Your task to perform on an android device: open app "Reddit" (install if not already installed) Image 0: 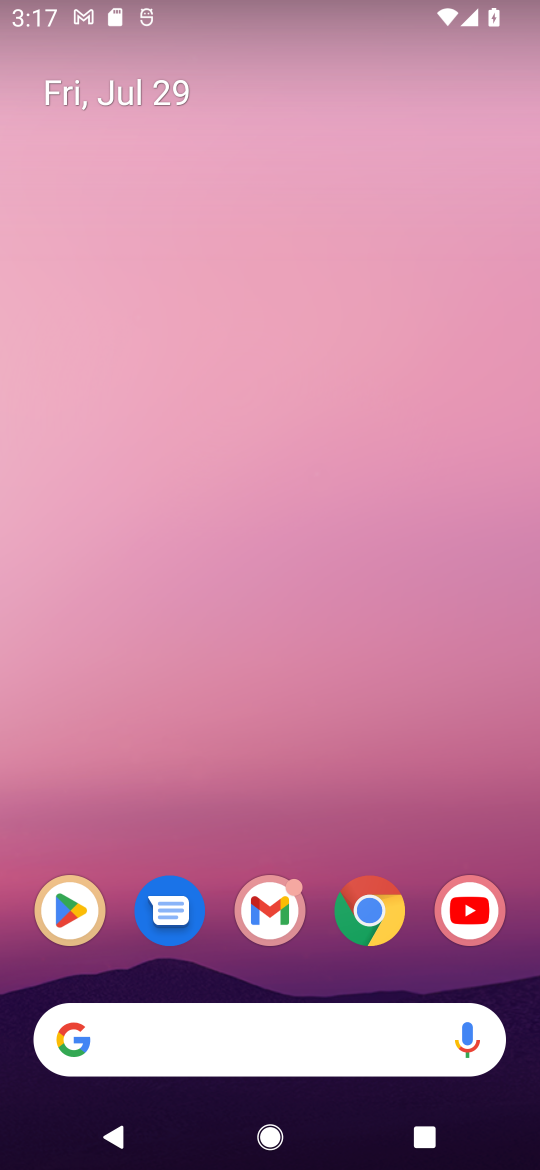
Step 0: drag from (333, 954) to (359, 375)
Your task to perform on an android device: open app "Reddit" (install if not already installed) Image 1: 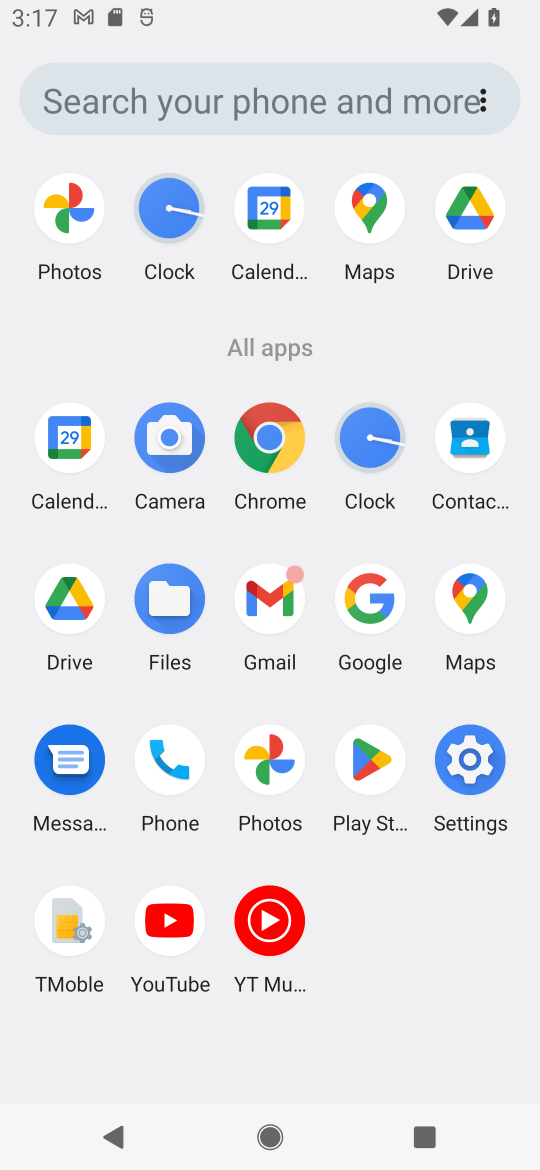
Step 1: click (385, 766)
Your task to perform on an android device: open app "Reddit" (install if not already installed) Image 2: 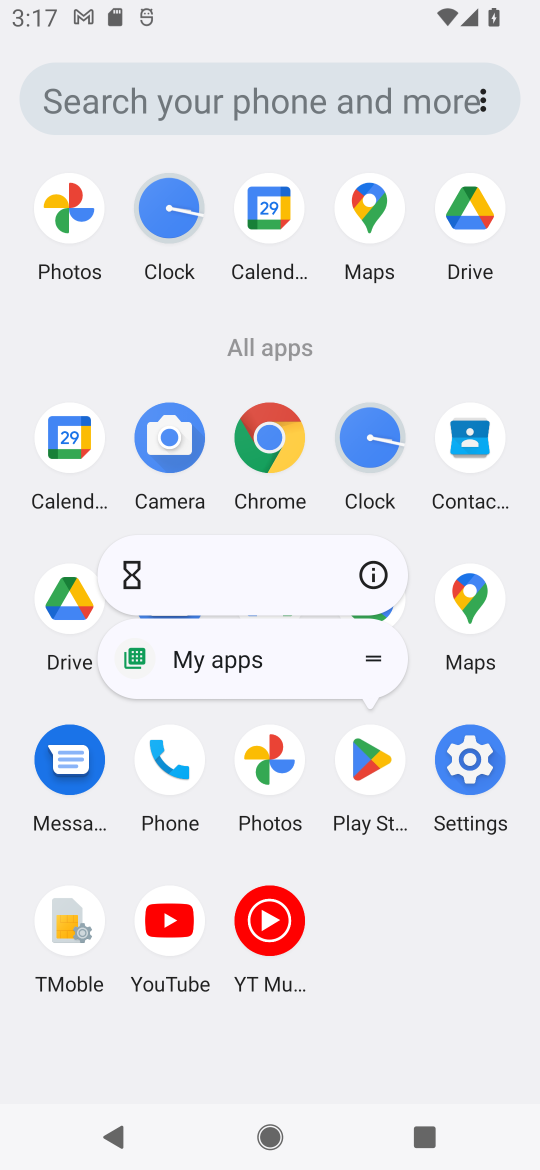
Step 2: click (360, 779)
Your task to perform on an android device: open app "Reddit" (install if not already installed) Image 3: 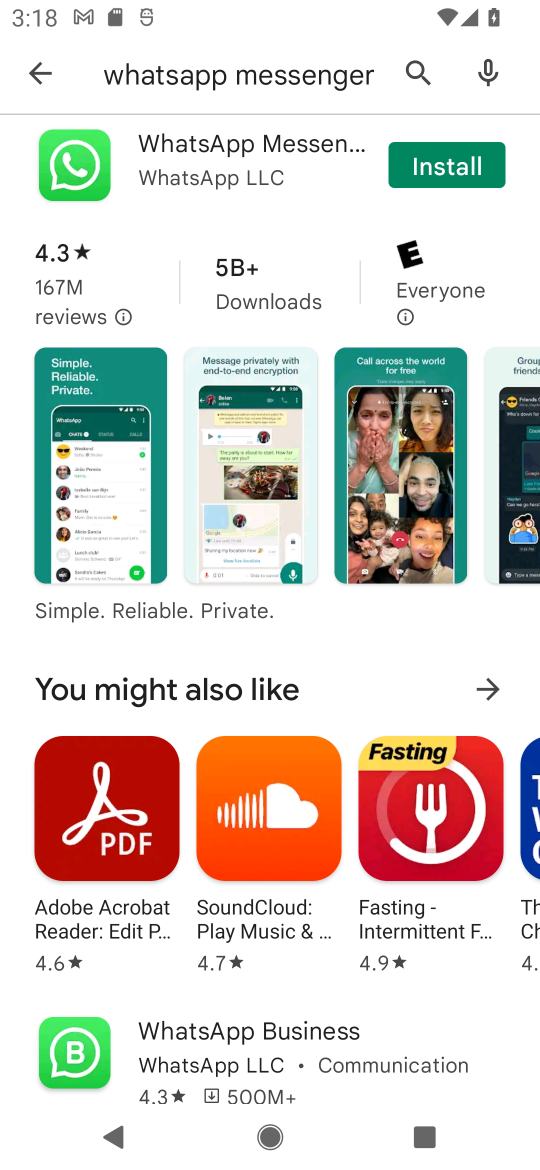
Step 3: click (33, 83)
Your task to perform on an android device: open app "Reddit" (install if not already installed) Image 4: 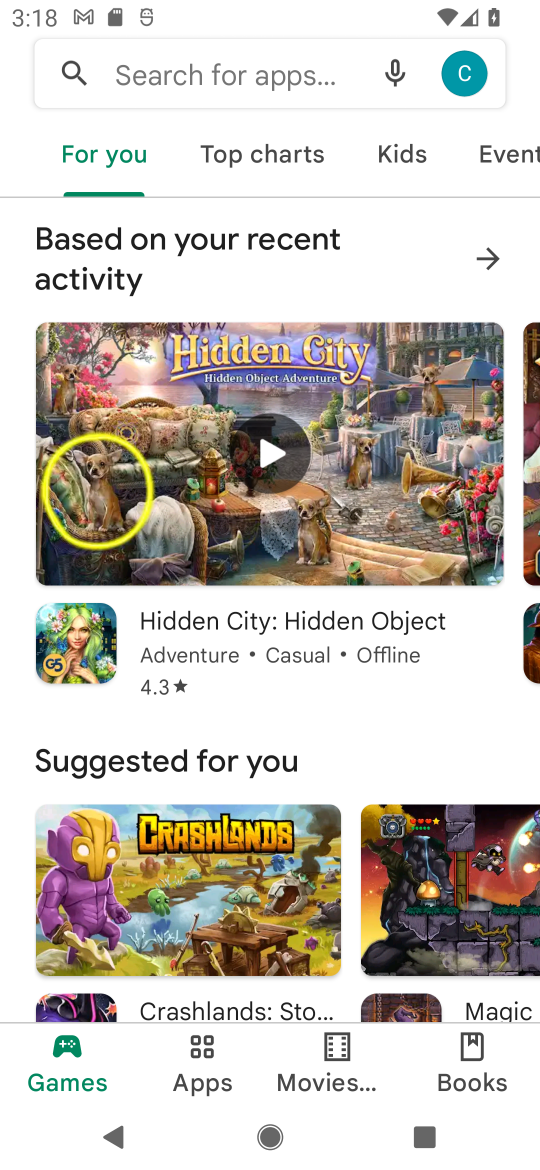
Step 4: click (177, 78)
Your task to perform on an android device: open app "Reddit" (install if not already installed) Image 5: 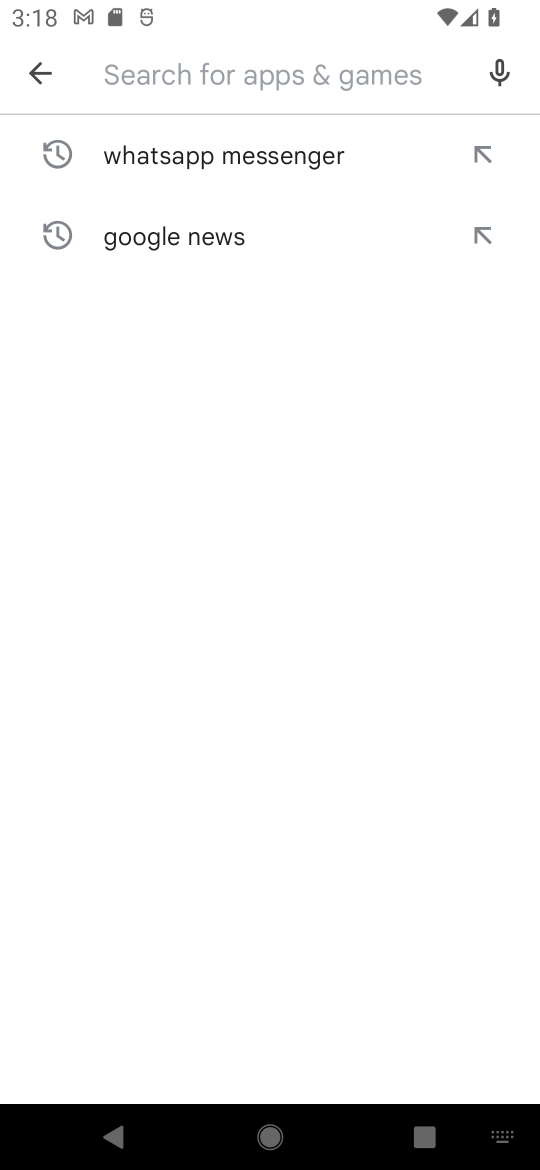
Step 5: type "reddit"
Your task to perform on an android device: open app "Reddit" (install if not already installed) Image 6: 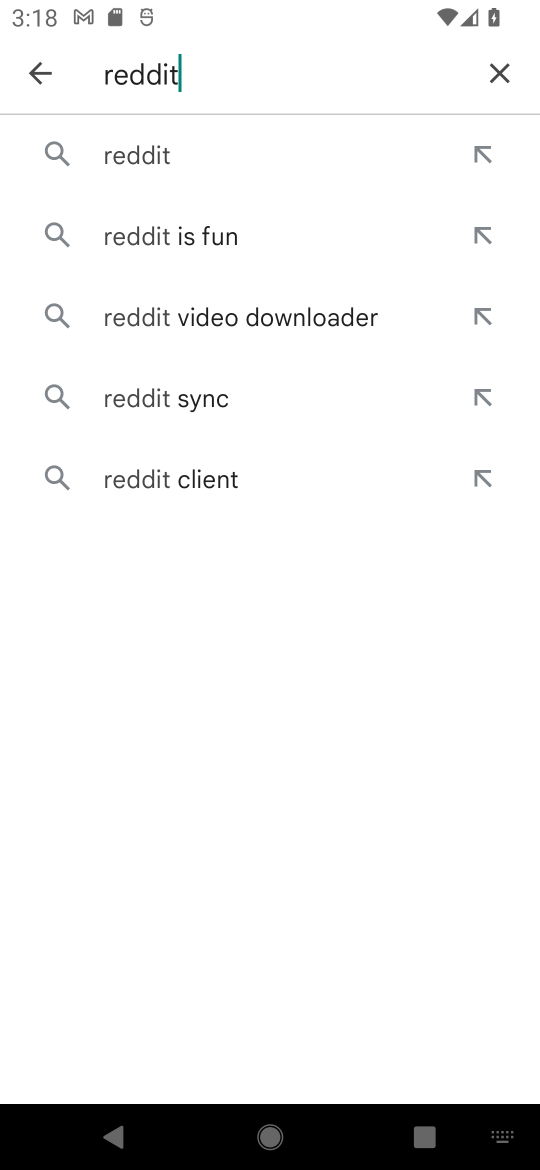
Step 6: click (166, 162)
Your task to perform on an android device: open app "Reddit" (install if not already installed) Image 7: 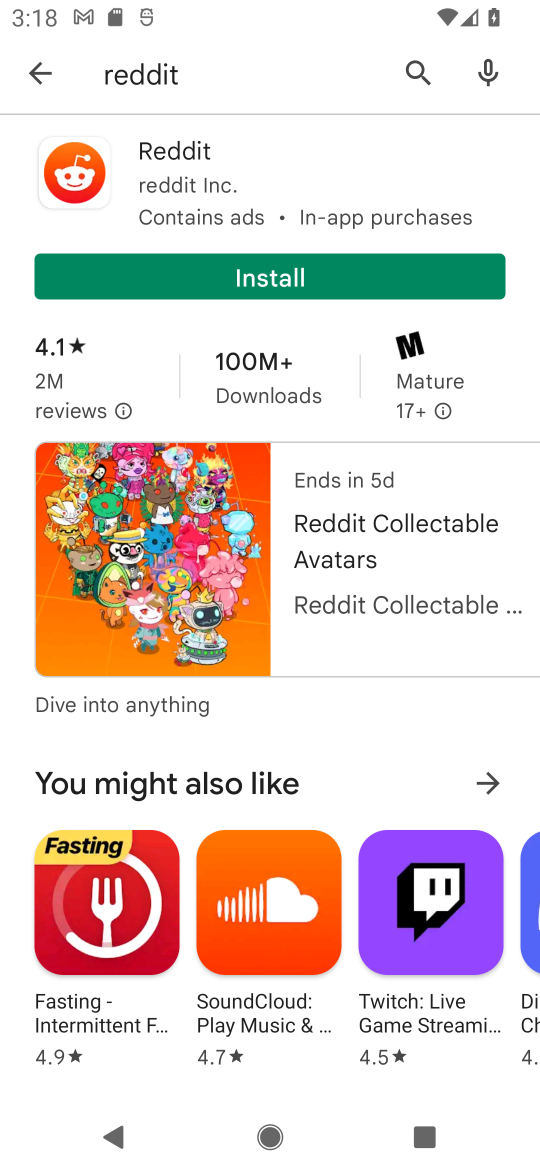
Step 7: click (321, 292)
Your task to perform on an android device: open app "Reddit" (install if not already installed) Image 8: 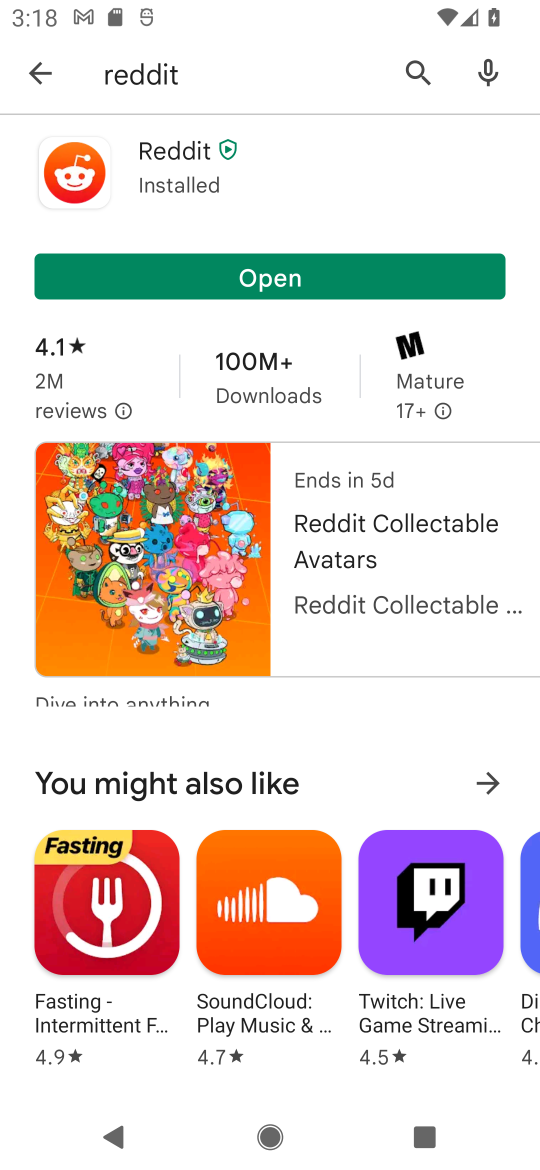
Step 8: click (271, 286)
Your task to perform on an android device: open app "Reddit" (install if not already installed) Image 9: 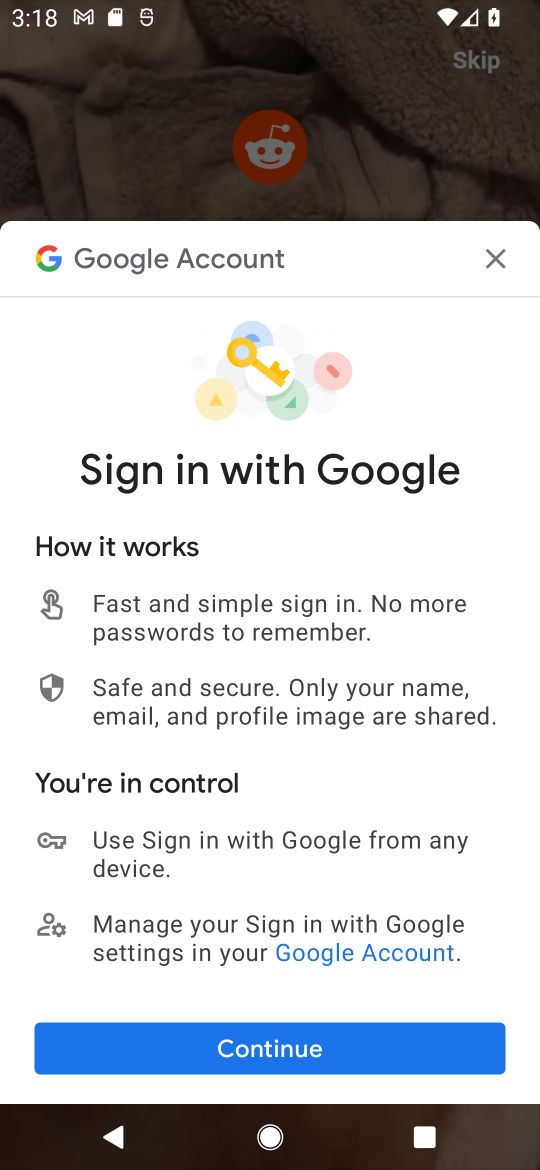
Step 9: task complete